Your task to perform on an android device: Open the calendar app, open the side menu, and click the "Day" option Image 0: 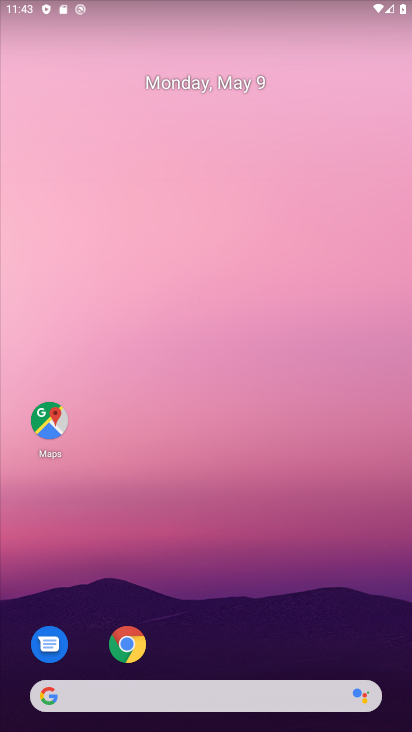
Step 0: drag from (204, 615) to (274, 69)
Your task to perform on an android device: Open the calendar app, open the side menu, and click the "Day" option Image 1: 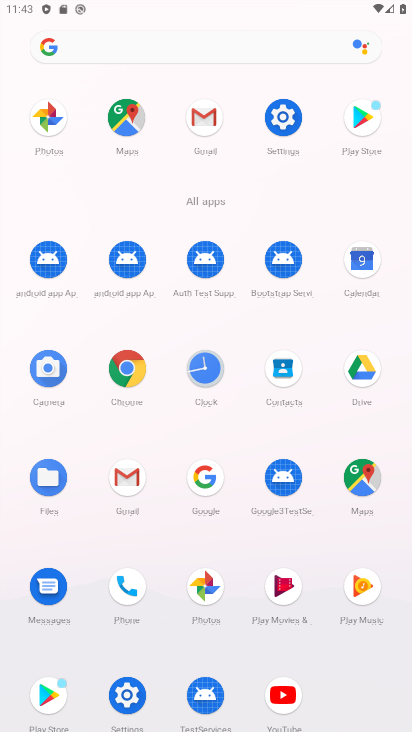
Step 1: click (369, 266)
Your task to perform on an android device: Open the calendar app, open the side menu, and click the "Day" option Image 2: 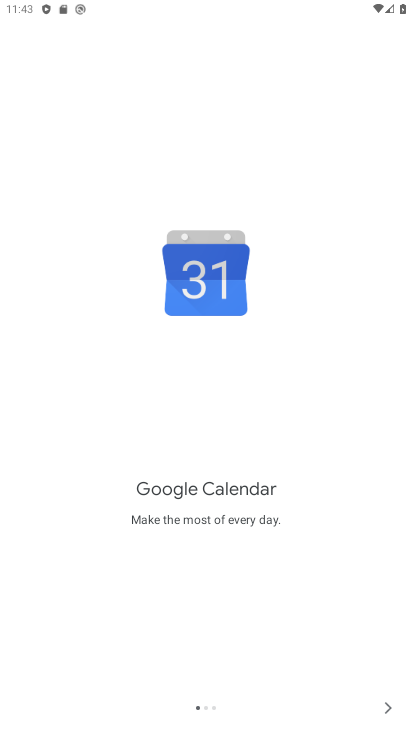
Step 2: click (391, 705)
Your task to perform on an android device: Open the calendar app, open the side menu, and click the "Day" option Image 3: 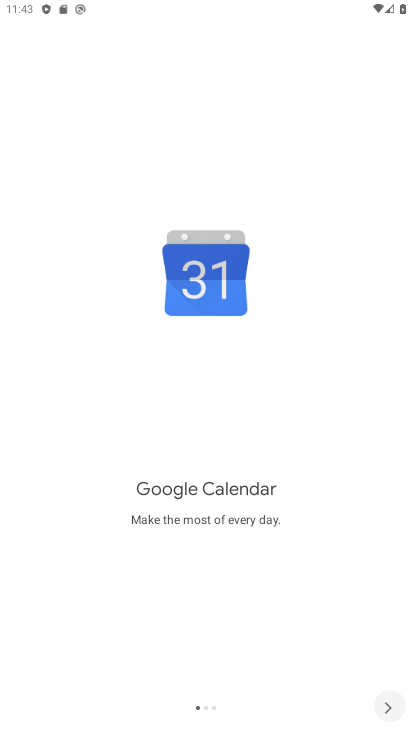
Step 3: click (391, 705)
Your task to perform on an android device: Open the calendar app, open the side menu, and click the "Day" option Image 4: 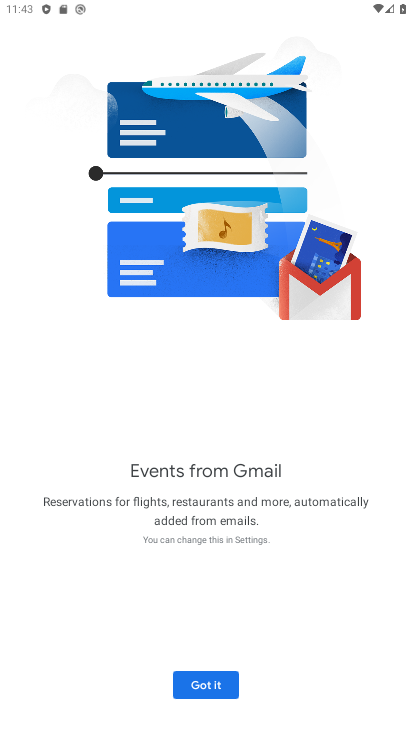
Step 4: click (391, 705)
Your task to perform on an android device: Open the calendar app, open the side menu, and click the "Day" option Image 5: 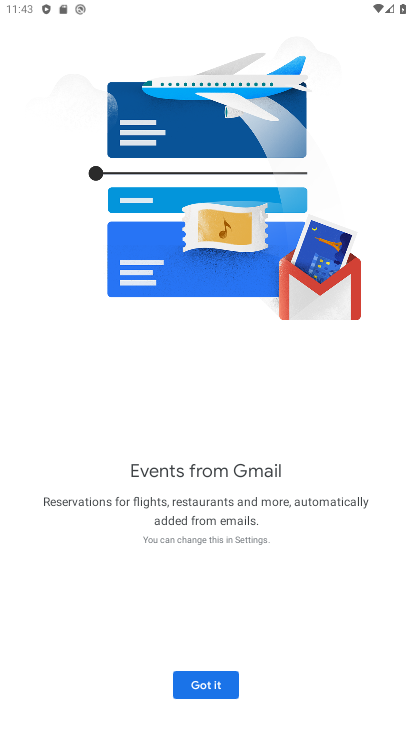
Step 5: click (205, 684)
Your task to perform on an android device: Open the calendar app, open the side menu, and click the "Day" option Image 6: 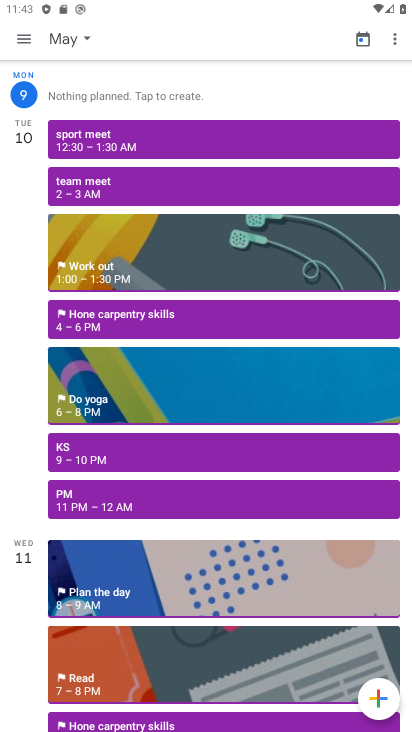
Step 6: click (29, 36)
Your task to perform on an android device: Open the calendar app, open the side menu, and click the "Day" option Image 7: 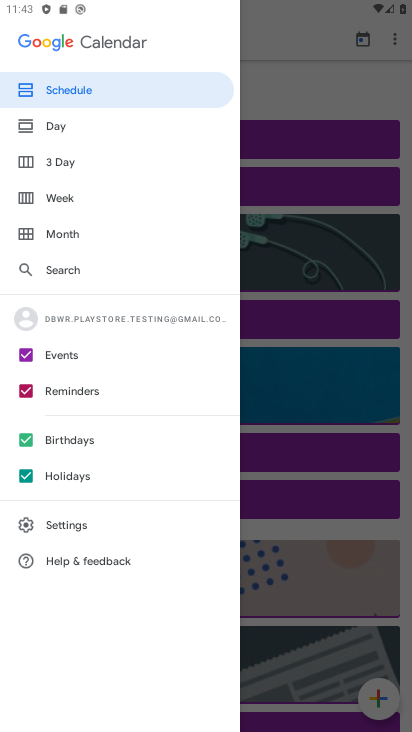
Step 7: click (71, 127)
Your task to perform on an android device: Open the calendar app, open the side menu, and click the "Day" option Image 8: 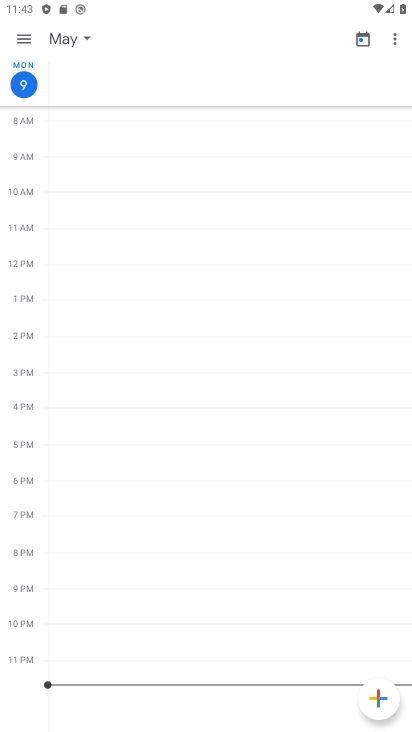
Step 8: click (18, 43)
Your task to perform on an android device: Open the calendar app, open the side menu, and click the "Day" option Image 9: 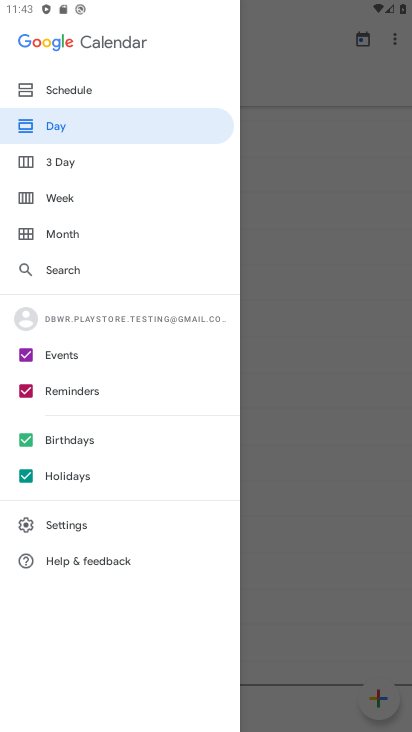
Step 9: click (67, 121)
Your task to perform on an android device: Open the calendar app, open the side menu, and click the "Day" option Image 10: 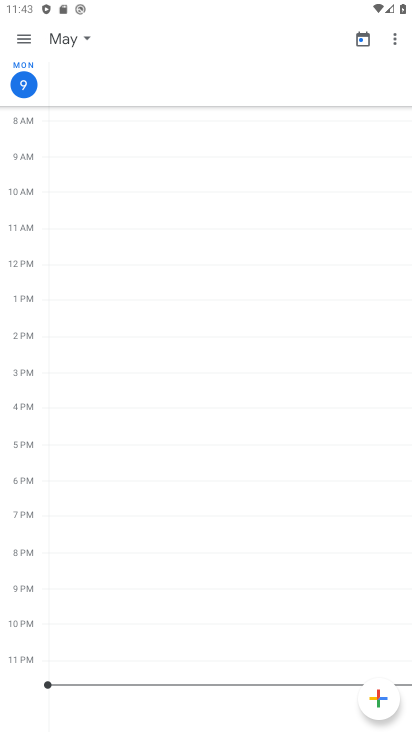
Step 10: click (19, 41)
Your task to perform on an android device: Open the calendar app, open the side menu, and click the "Day" option Image 11: 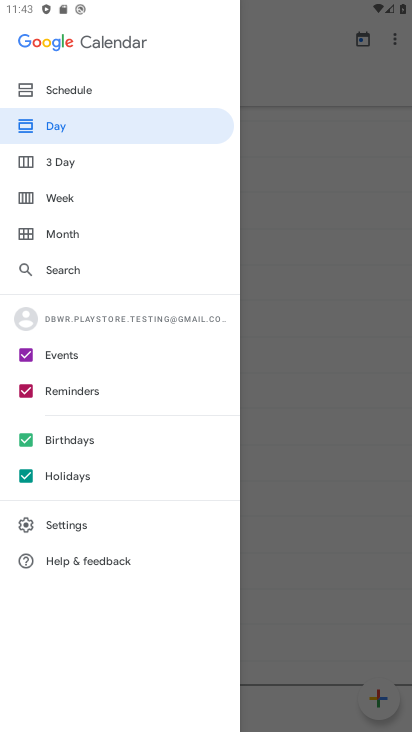
Step 11: click (90, 128)
Your task to perform on an android device: Open the calendar app, open the side menu, and click the "Day" option Image 12: 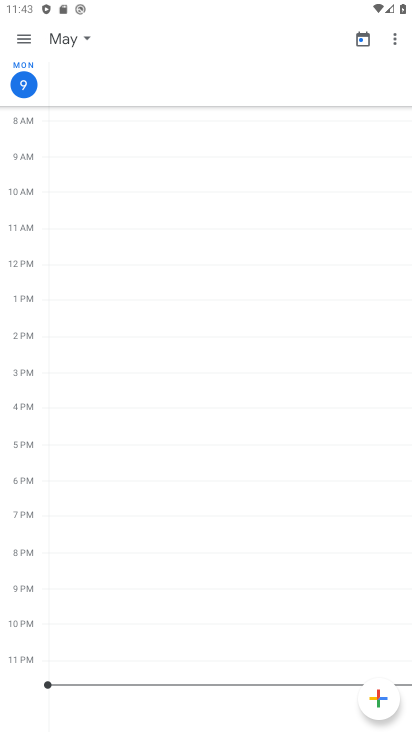
Step 12: task complete